Your task to perform on an android device: open device folders in google photos Image 0: 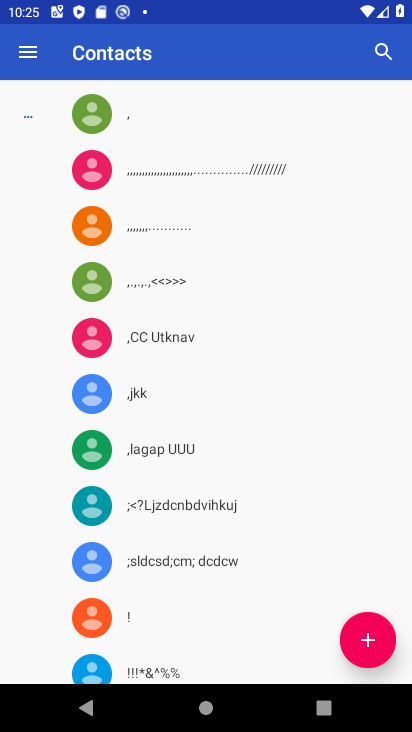
Step 0: press home button
Your task to perform on an android device: open device folders in google photos Image 1: 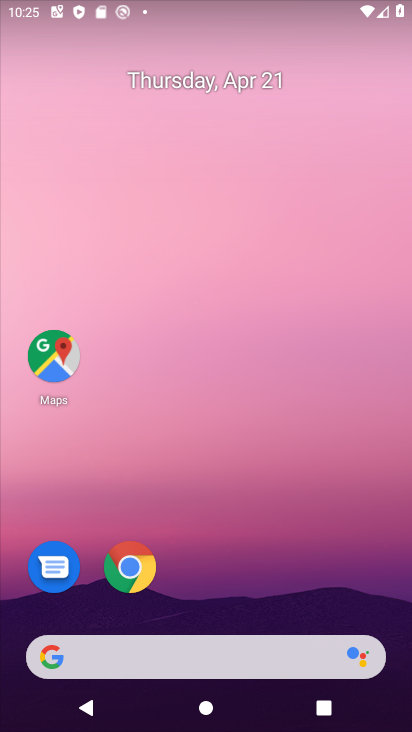
Step 1: drag from (238, 593) to (311, 89)
Your task to perform on an android device: open device folders in google photos Image 2: 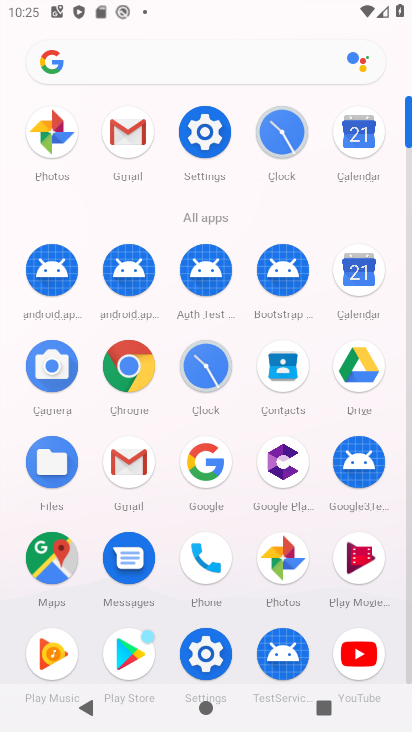
Step 2: click (283, 563)
Your task to perform on an android device: open device folders in google photos Image 3: 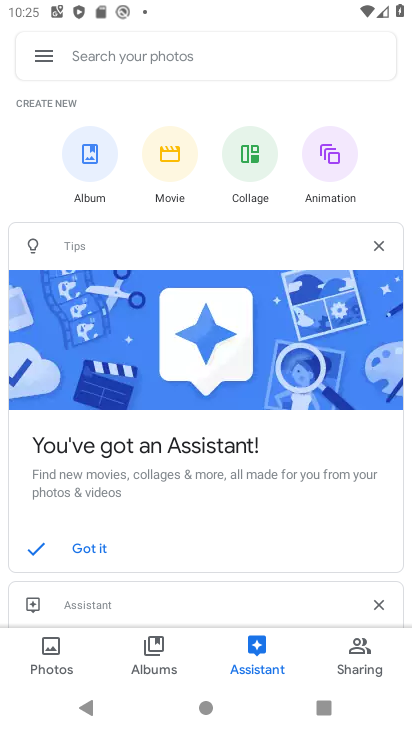
Step 3: click (46, 52)
Your task to perform on an android device: open device folders in google photos Image 4: 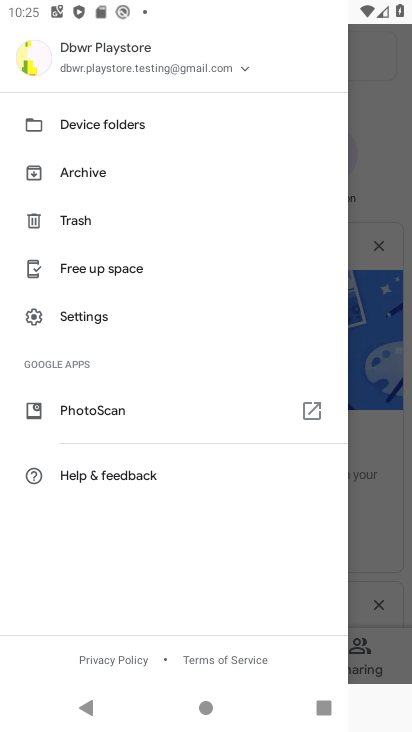
Step 4: click (114, 121)
Your task to perform on an android device: open device folders in google photos Image 5: 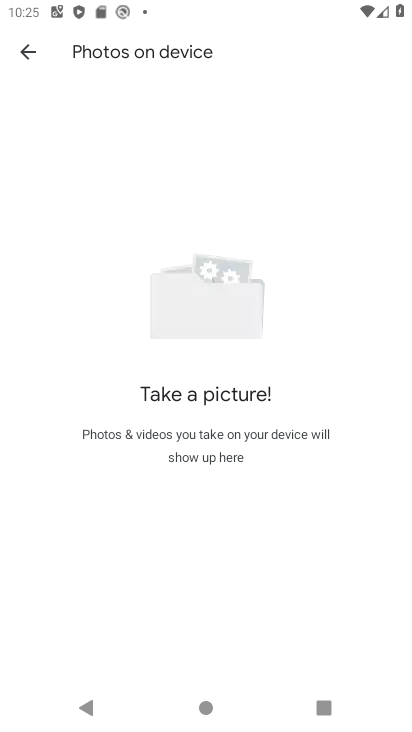
Step 5: task complete